Your task to perform on an android device: show emergency info Image 0: 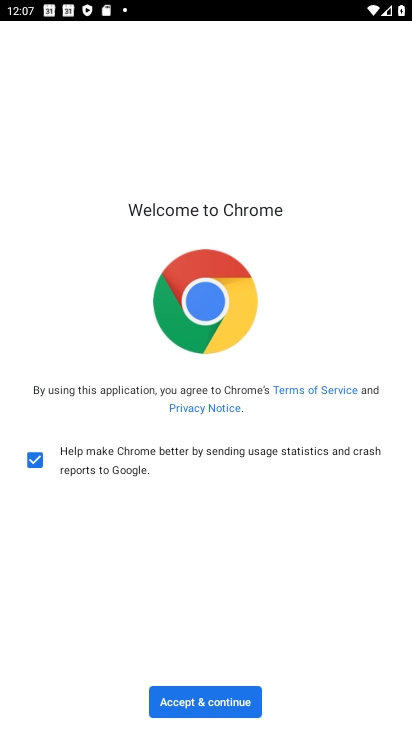
Step 0: press home button
Your task to perform on an android device: show emergency info Image 1: 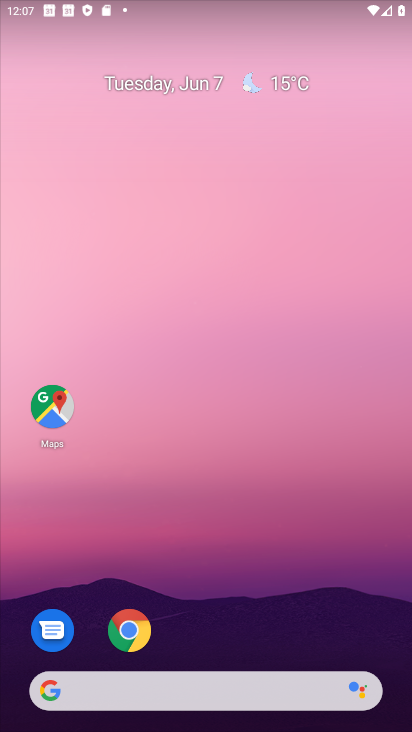
Step 1: drag from (348, 585) to (326, 195)
Your task to perform on an android device: show emergency info Image 2: 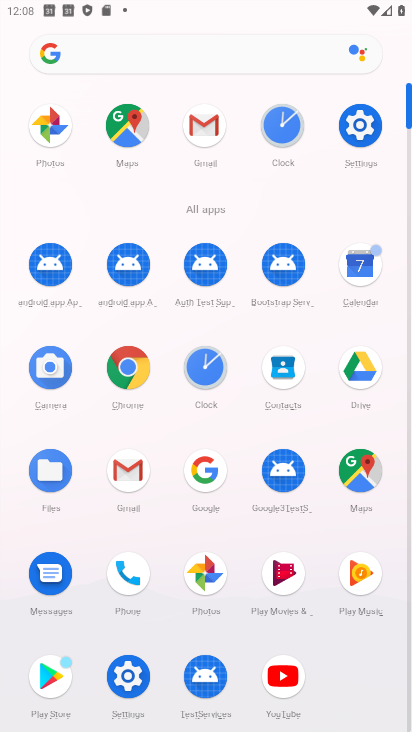
Step 2: click (122, 690)
Your task to perform on an android device: show emergency info Image 3: 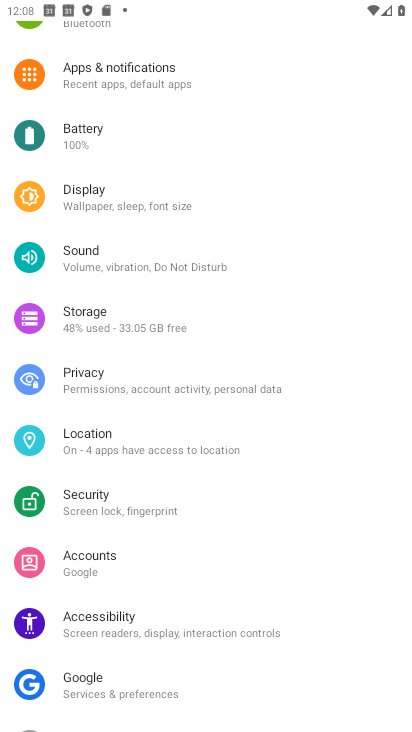
Step 3: drag from (286, 673) to (292, 252)
Your task to perform on an android device: show emergency info Image 4: 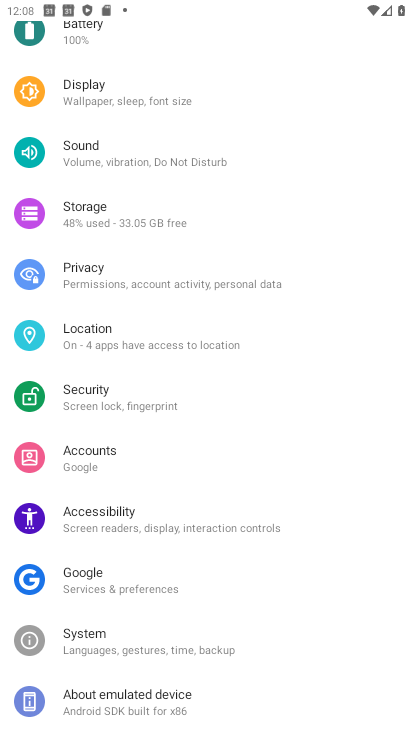
Step 4: click (141, 684)
Your task to perform on an android device: show emergency info Image 5: 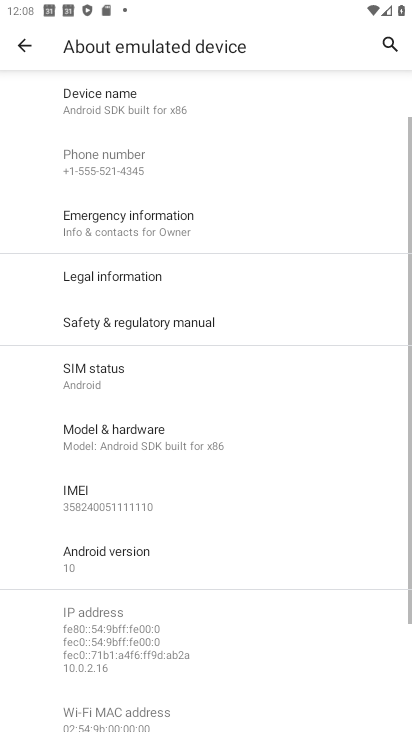
Step 5: click (196, 231)
Your task to perform on an android device: show emergency info Image 6: 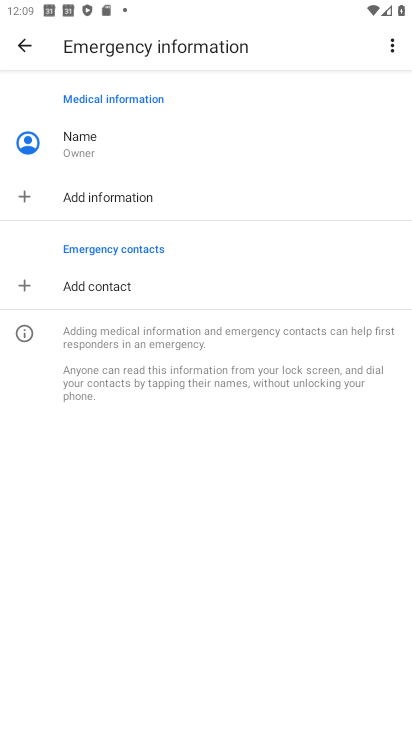
Step 6: task complete